Your task to perform on an android device: turn off javascript in the chrome app Image 0: 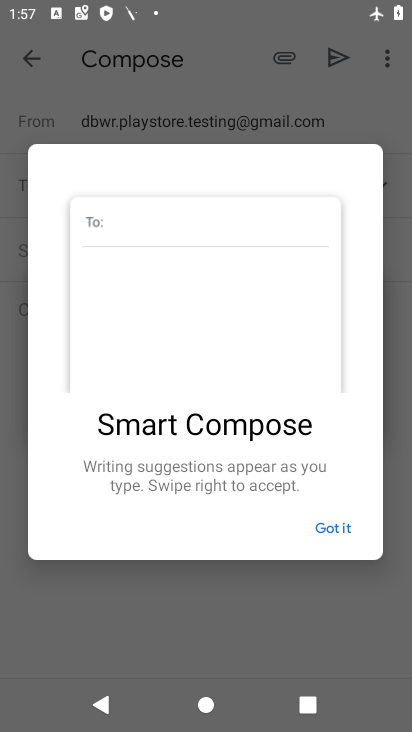
Step 0: press home button
Your task to perform on an android device: turn off javascript in the chrome app Image 1: 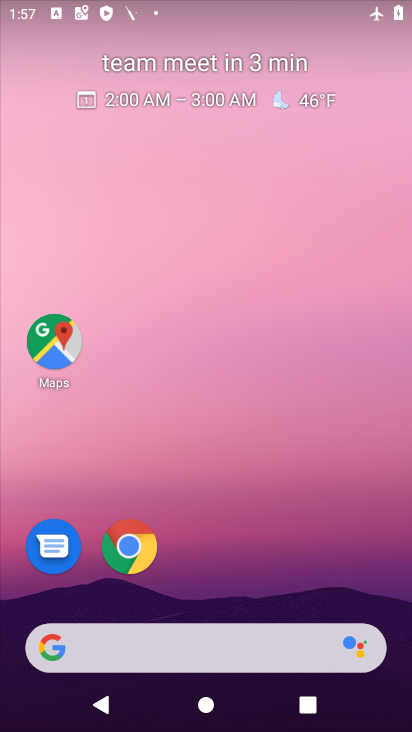
Step 1: click (128, 544)
Your task to perform on an android device: turn off javascript in the chrome app Image 2: 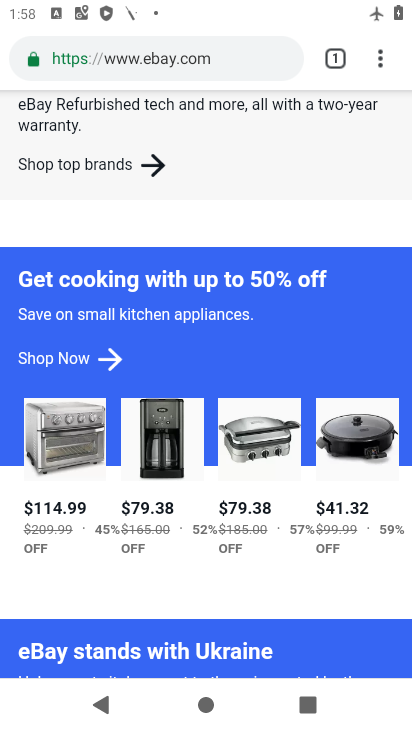
Step 2: click (380, 57)
Your task to perform on an android device: turn off javascript in the chrome app Image 3: 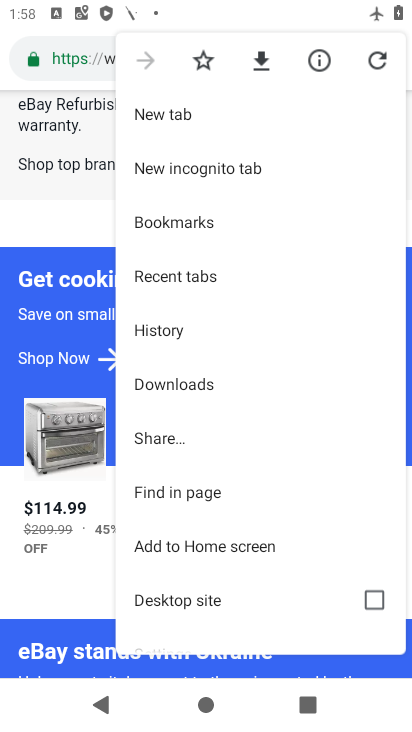
Step 3: drag from (275, 607) to (304, 261)
Your task to perform on an android device: turn off javascript in the chrome app Image 4: 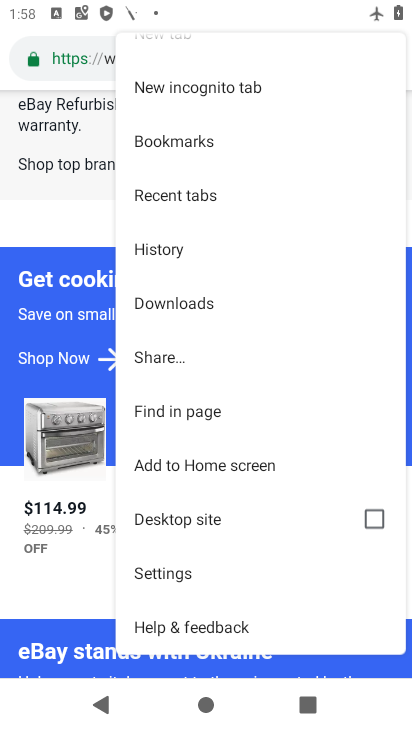
Step 4: click (160, 573)
Your task to perform on an android device: turn off javascript in the chrome app Image 5: 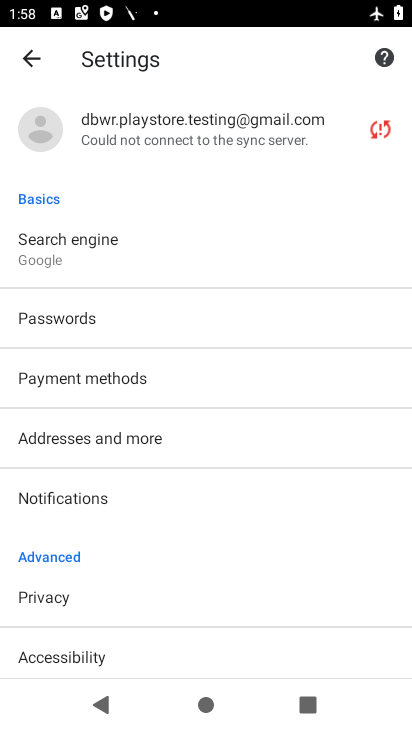
Step 5: drag from (165, 619) to (208, 267)
Your task to perform on an android device: turn off javascript in the chrome app Image 6: 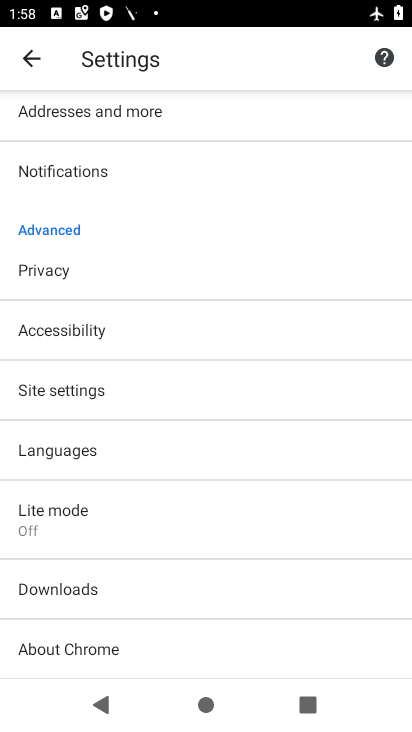
Step 6: click (47, 389)
Your task to perform on an android device: turn off javascript in the chrome app Image 7: 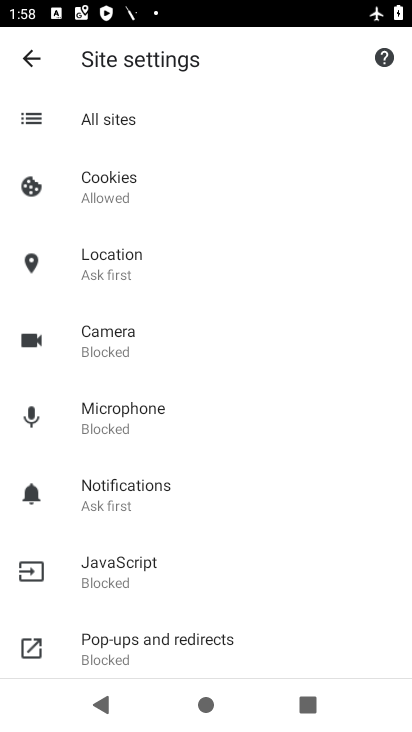
Step 7: click (120, 572)
Your task to perform on an android device: turn off javascript in the chrome app Image 8: 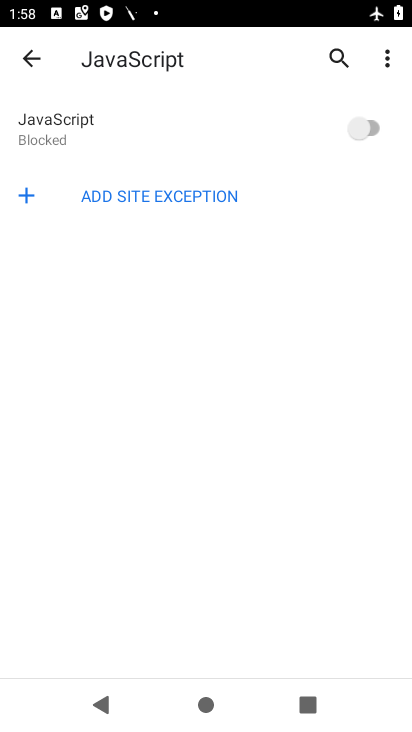
Step 8: task complete